Your task to perform on an android device: Search for Mexican restaurants on Maps Image 0: 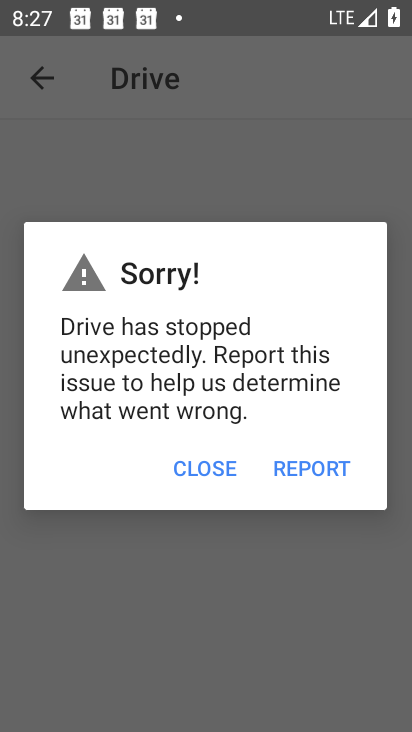
Step 0: press home button
Your task to perform on an android device: Search for Mexican restaurants on Maps Image 1: 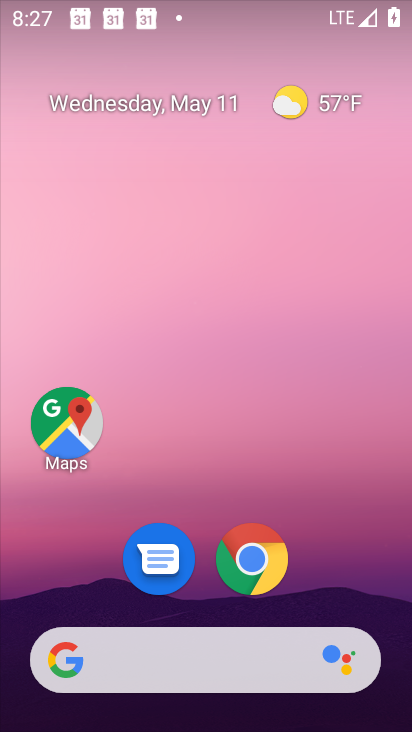
Step 1: click (64, 426)
Your task to perform on an android device: Search for Mexican restaurants on Maps Image 2: 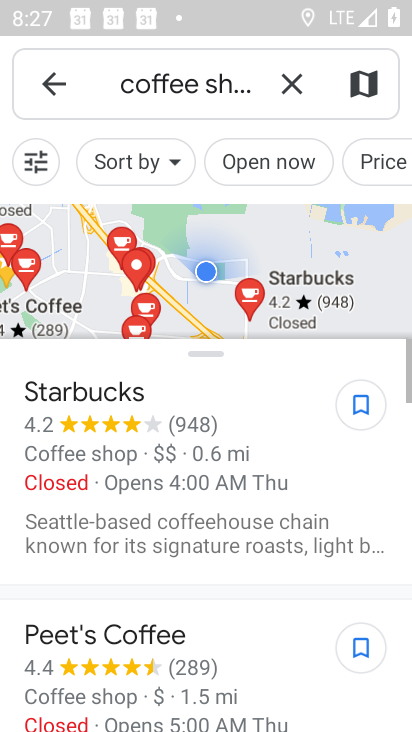
Step 2: click (296, 85)
Your task to perform on an android device: Search for Mexican restaurants on Maps Image 3: 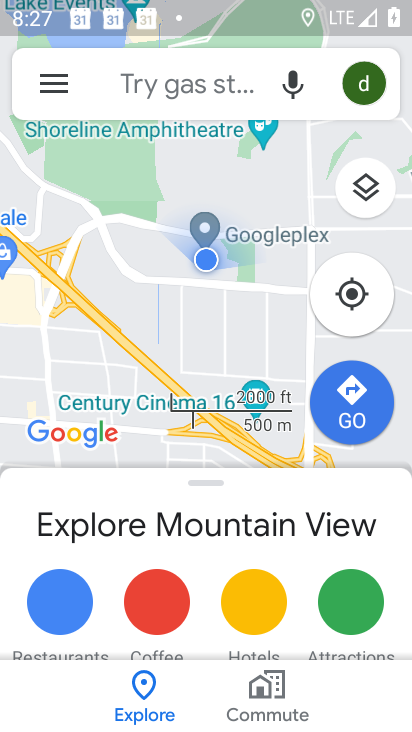
Step 3: click (266, 82)
Your task to perform on an android device: Search for Mexican restaurants on Maps Image 4: 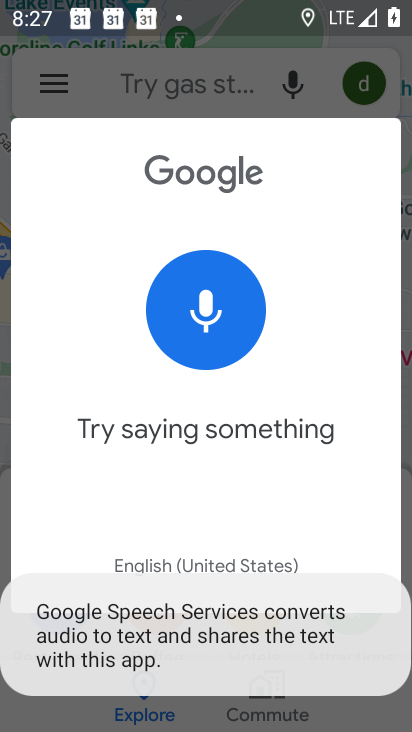
Step 4: click (243, 86)
Your task to perform on an android device: Search for Mexican restaurants on Maps Image 5: 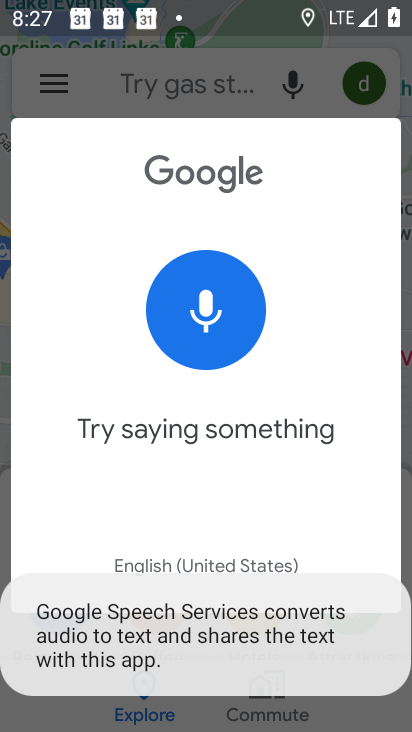
Step 5: click (243, 86)
Your task to perform on an android device: Search for Mexican restaurants on Maps Image 6: 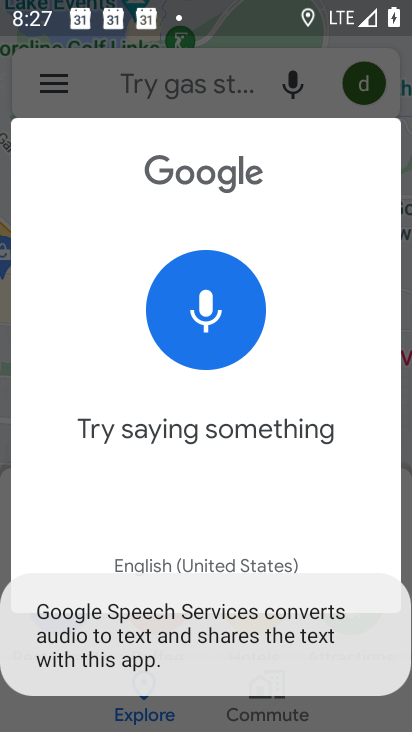
Step 6: click (243, 86)
Your task to perform on an android device: Search for Mexican restaurants on Maps Image 7: 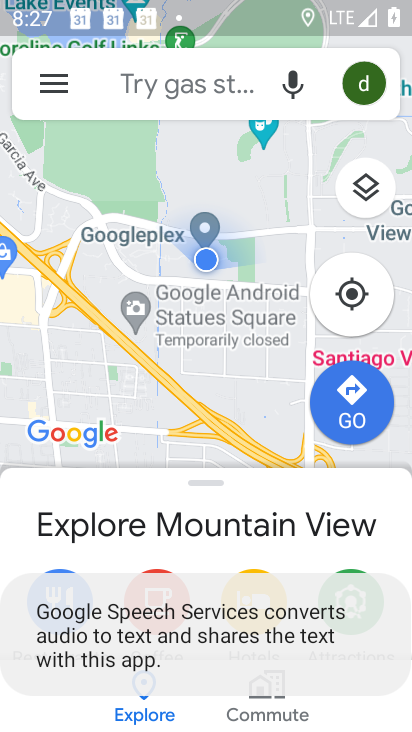
Step 7: click (243, 86)
Your task to perform on an android device: Search for Mexican restaurants on Maps Image 8: 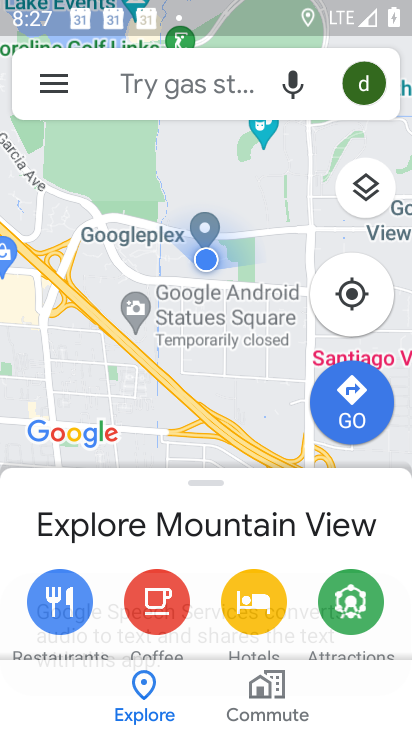
Step 8: click (243, 86)
Your task to perform on an android device: Search for Mexican restaurants on Maps Image 9: 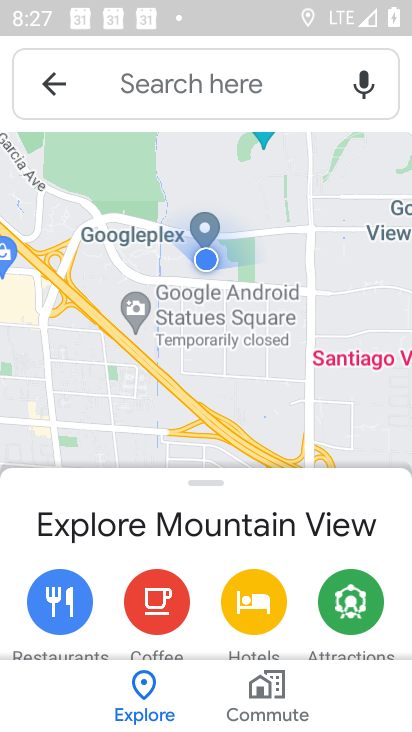
Step 9: click (243, 86)
Your task to perform on an android device: Search for Mexican restaurants on Maps Image 10: 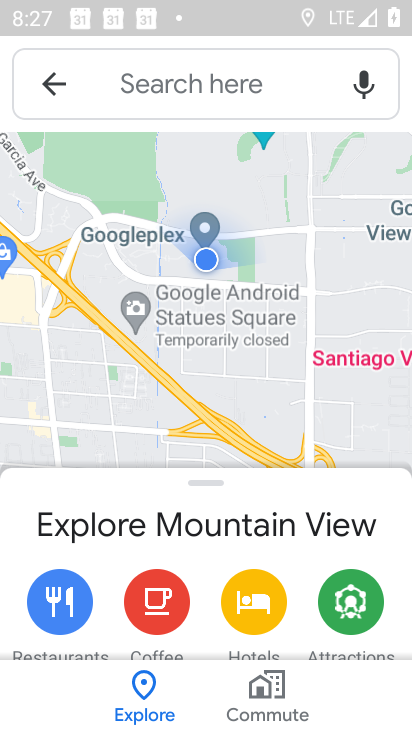
Step 10: click (243, 86)
Your task to perform on an android device: Search for Mexican restaurants on Maps Image 11: 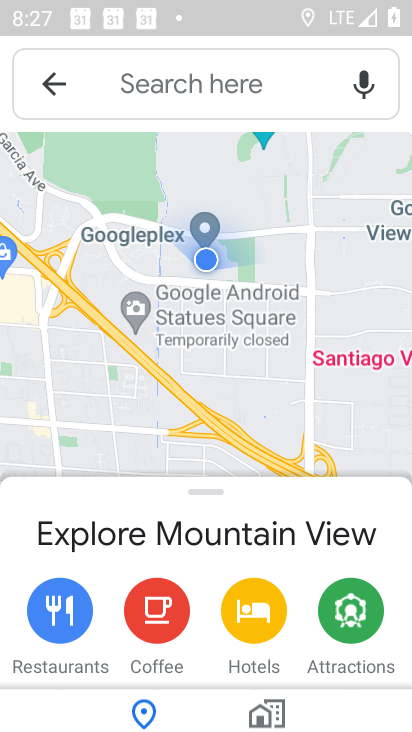
Step 11: click (243, 86)
Your task to perform on an android device: Search for Mexican restaurants on Maps Image 12: 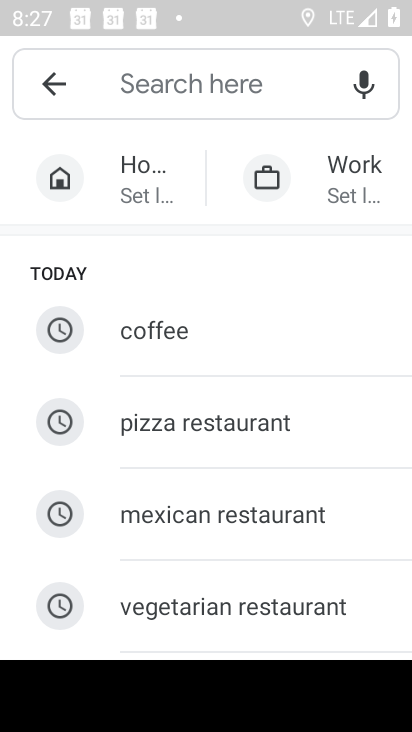
Step 12: type "Mexican restaurants "
Your task to perform on an android device: Search for Mexican restaurants on Maps Image 13: 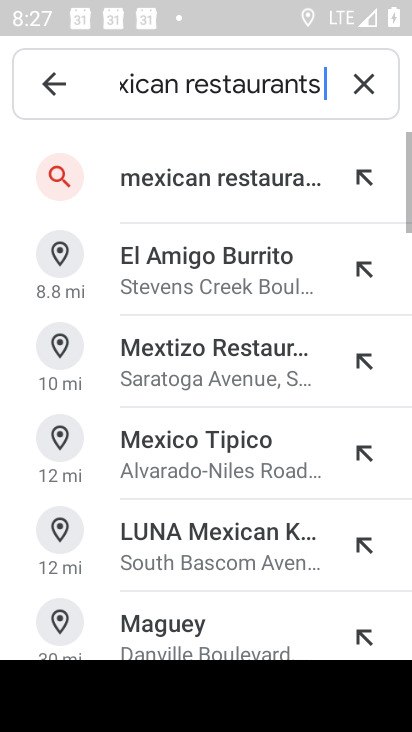
Step 13: click (182, 170)
Your task to perform on an android device: Search for Mexican restaurants on Maps Image 14: 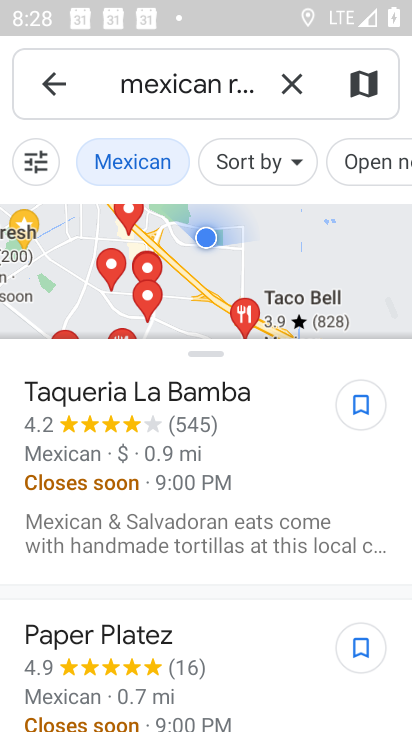
Step 14: task complete